Your task to perform on an android device: Check the weather Image 0: 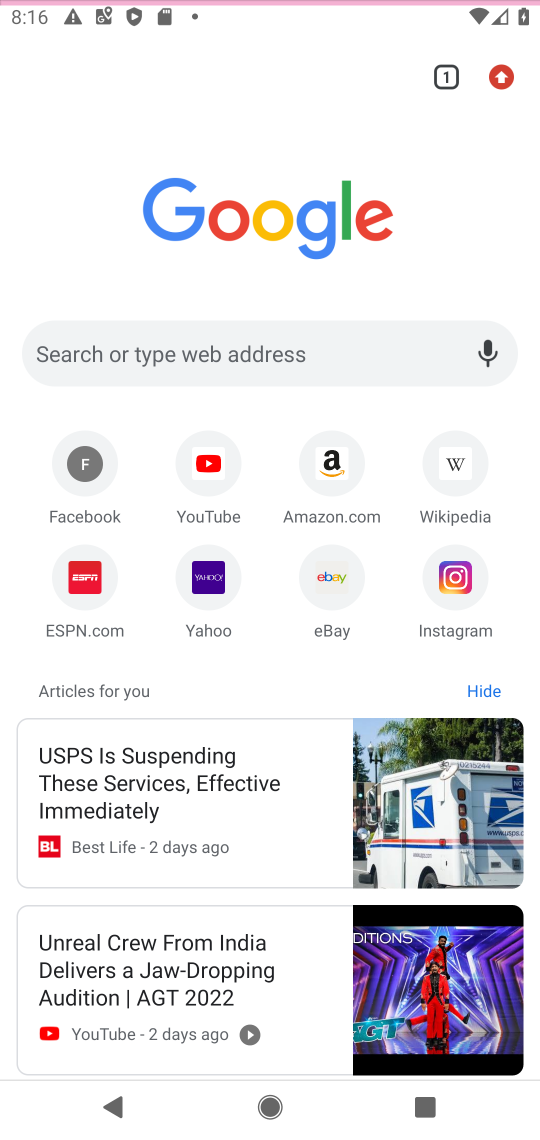
Step 0: click (286, 122)
Your task to perform on an android device: Check the weather Image 1: 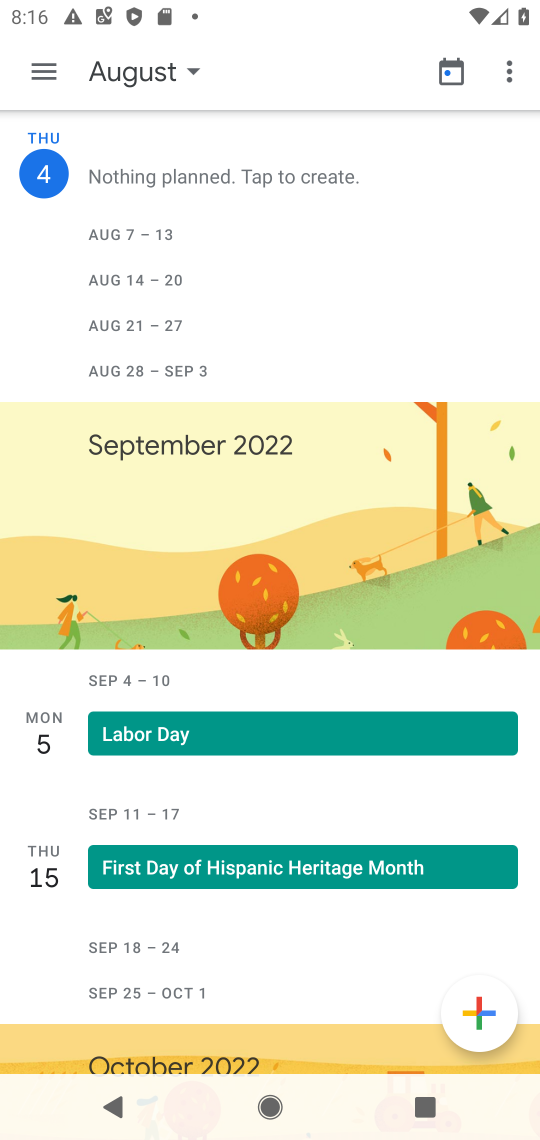
Step 1: press home button
Your task to perform on an android device: Check the weather Image 2: 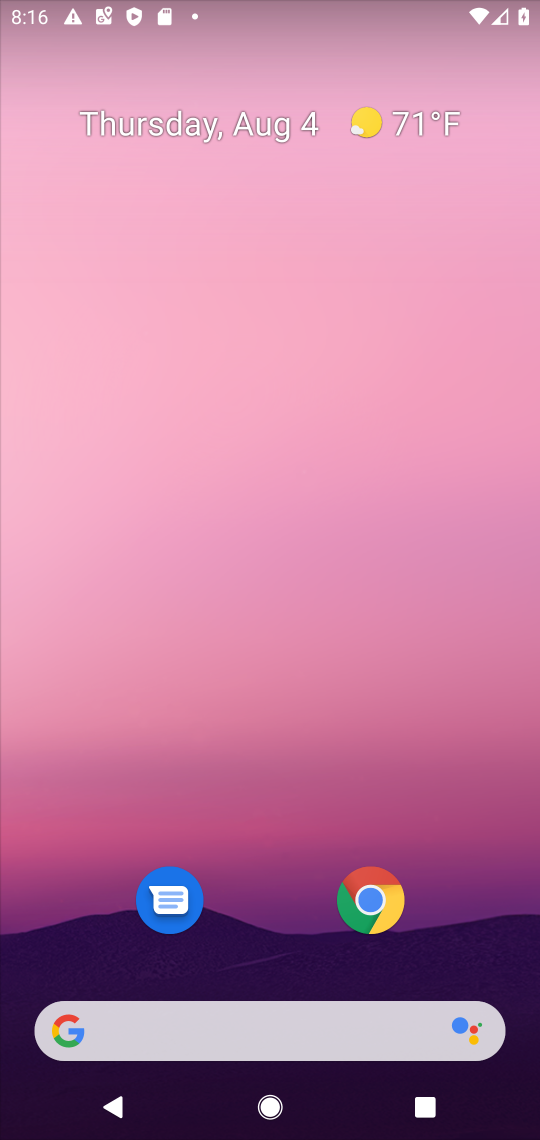
Step 2: click (180, 1022)
Your task to perform on an android device: Check the weather Image 3: 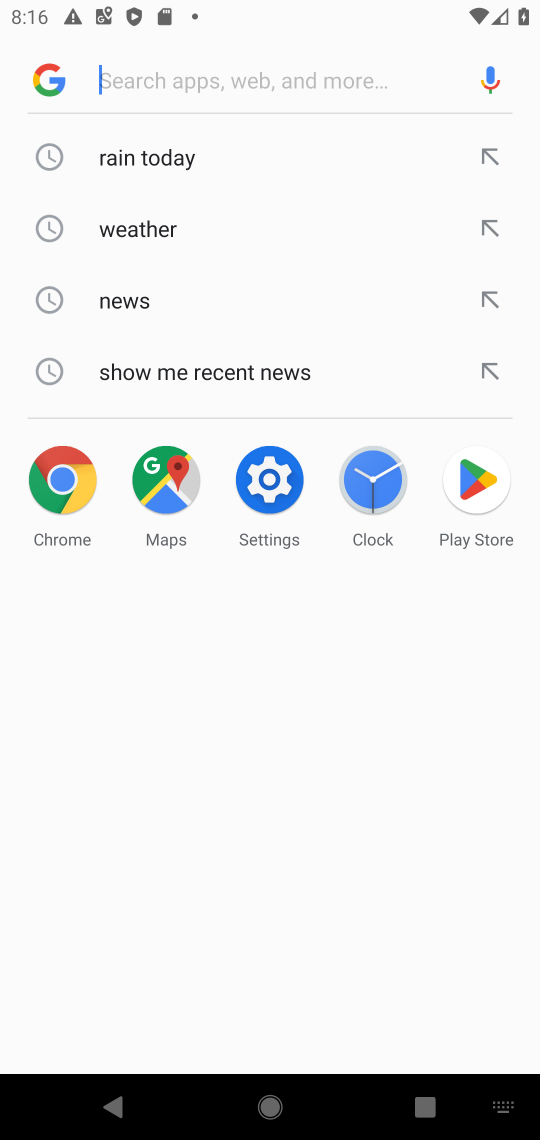
Step 3: click (171, 226)
Your task to perform on an android device: Check the weather Image 4: 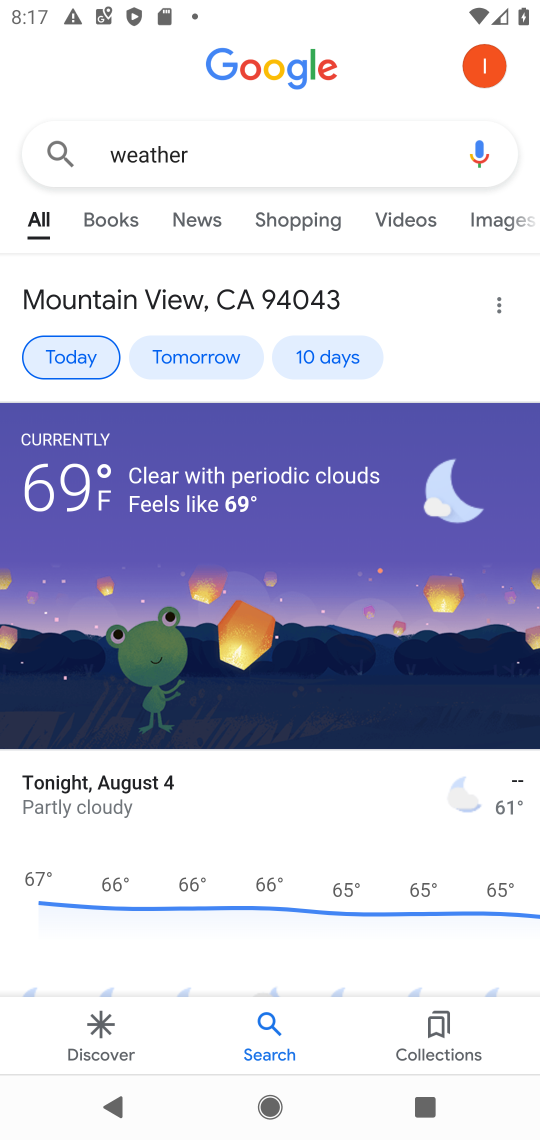
Step 4: task complete